Your task to perform on an android device: Open network settings Image 0: 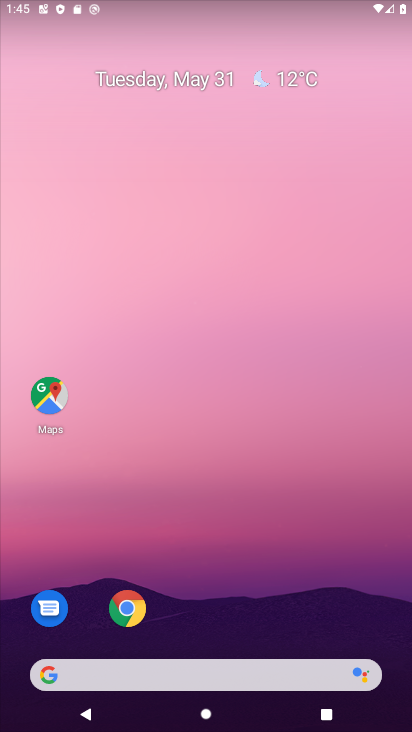
Step 0: drag from (264, 547) to (286, 179)
Your task to perform on an android device: Open network settings Image 1: 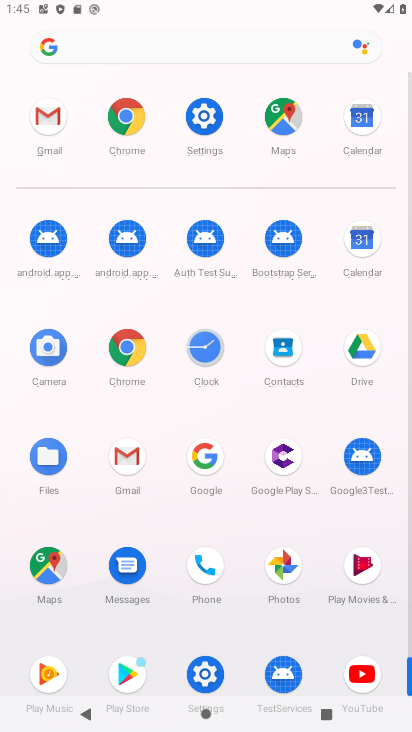
Step 1: click (212, 128)
Your task to perform on an android device: Open network settings Image 2: 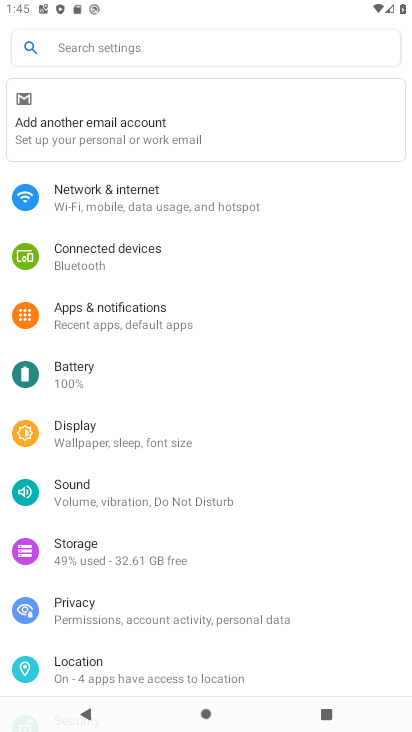
Step 2: click (192, 225)
Your task to perform on an android device: Open network settings Image 3: 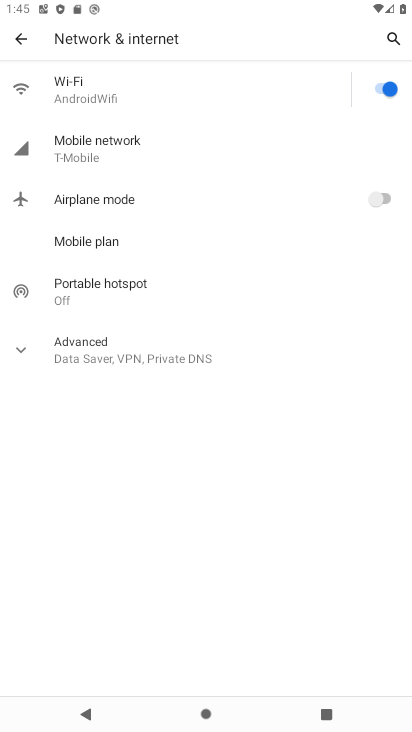
Step 3: task complete